Your task to perform on an android device: Open sound settings Image 0: 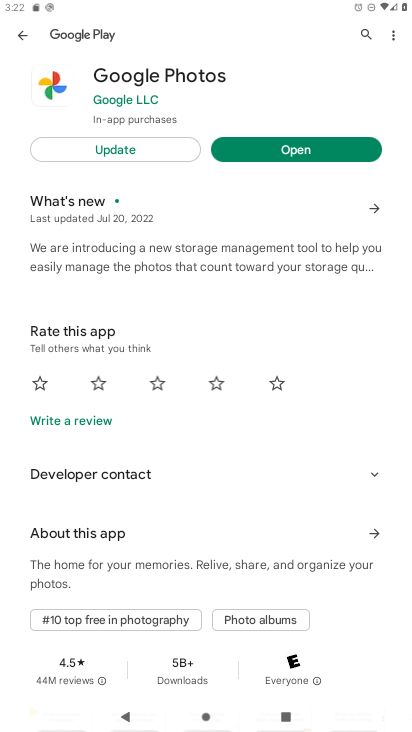
Step 0: press home button
Your task to perform on an android device: Open sound settings Image 1: 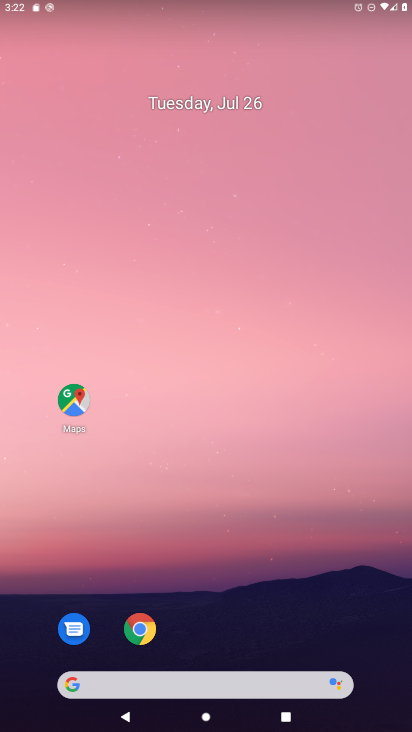
Step 1: drag from (196, 631) to (155, 247)
Your task to perform on an android device: Open sound settings Image 2: 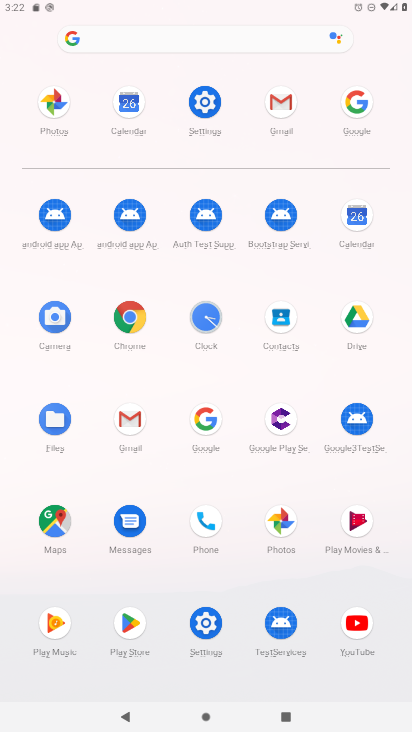
Step 2: click (208, 110)
Your task to perform on an android device: Open sound settings Image 3: 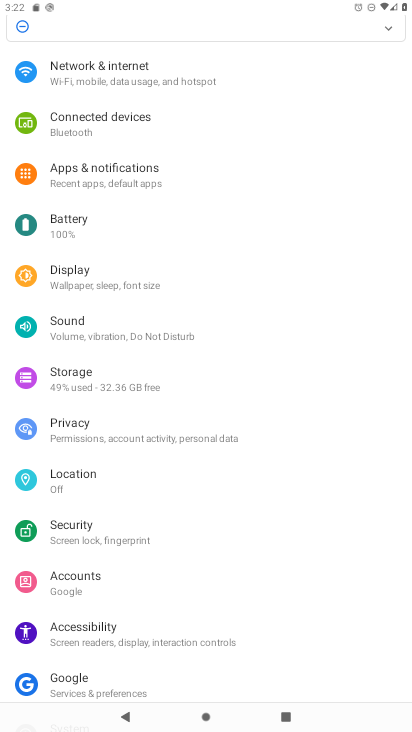
Step 3: click (122, 324)
Your task to perform on an android device: Open sound settings Image 4: 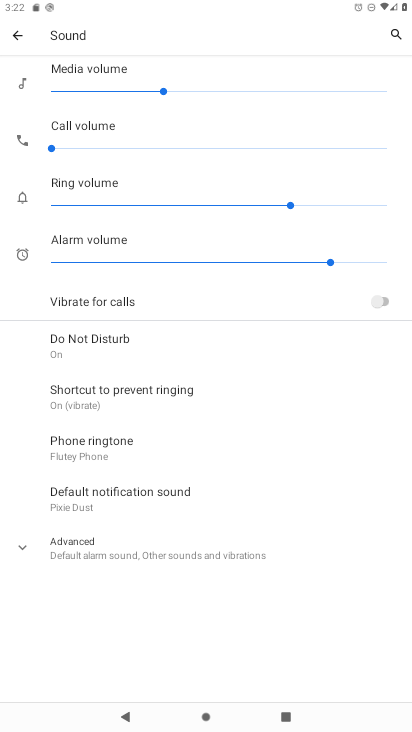
Step 4: task complete